Your task to perform on an android device: Go to calendar. Show me events next week Image 0: 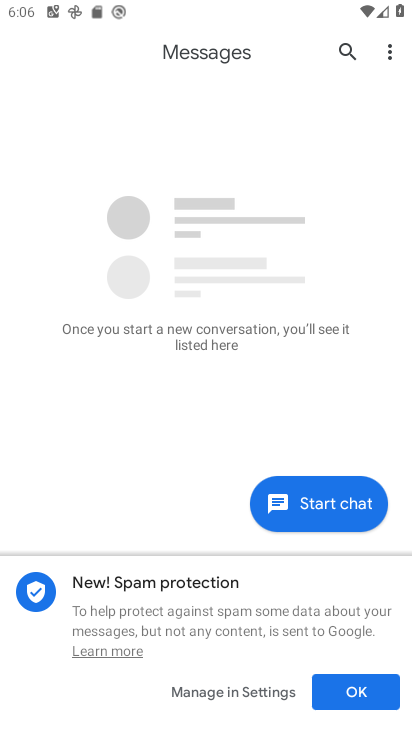
Step 0: press home button
Your task to perform on an android device: Go to calendar. Show me events next week Image 1: 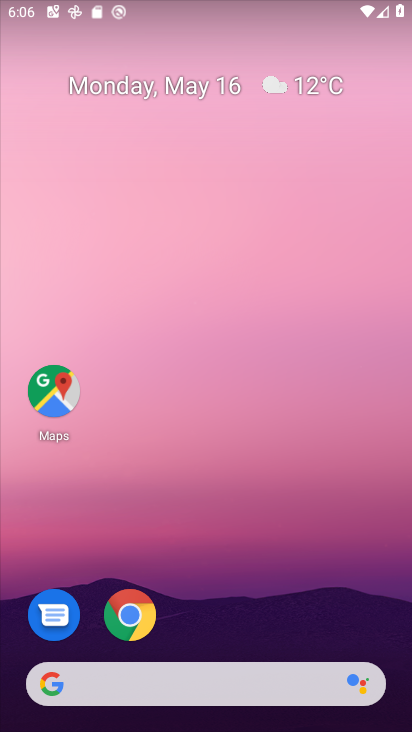
Step 1: drag from (225, 613) to (241, 70)
Your task to perform on an android device: Go to calendar. Show me events next week Image 2: 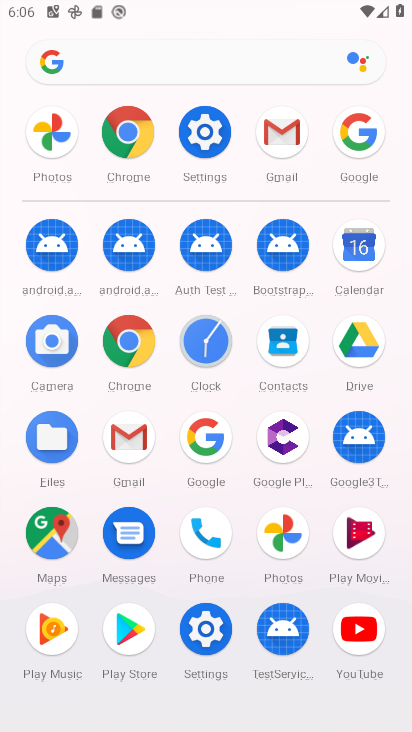
Step 2: click (360, 285)
Your task to perform on an android device: Go to calendar. Show me events next week Image 3: 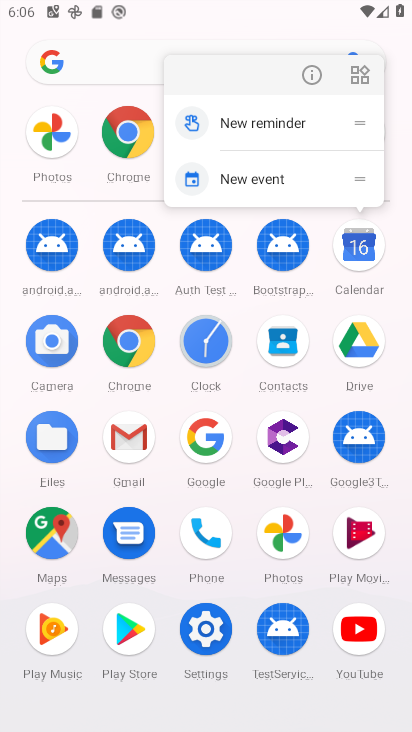
Step 3: click (357, 267)
Your task to perform on an android device: Go to calendar. Show me events next week Image 4: 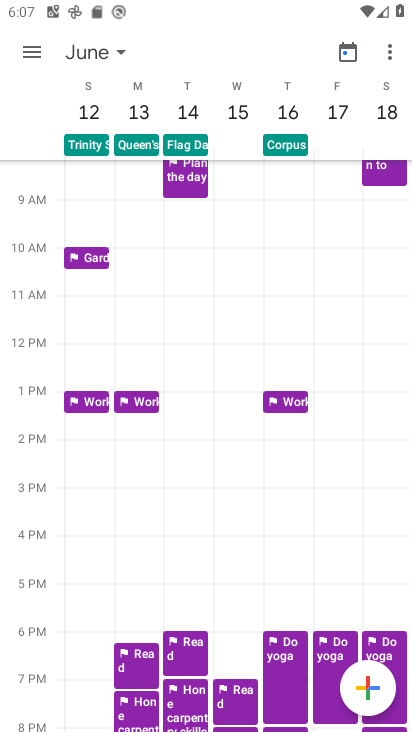
Step 4: click (41, 59)
Your task to perform on an android device: Go to calendar. Show me events next week Image 5: 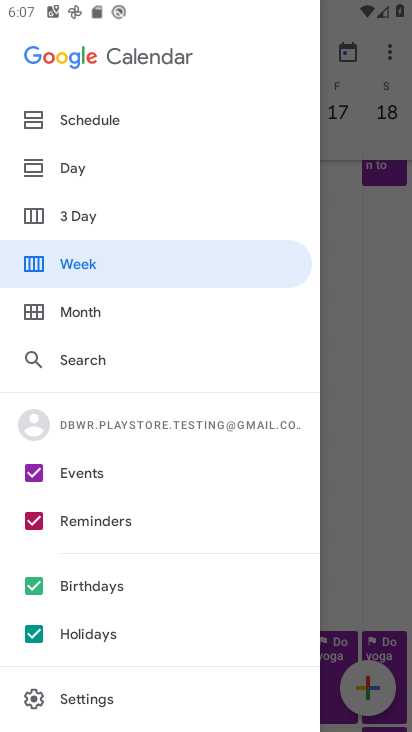
Step 5: click (97, 263)
Your task to perform on an android device: Go to calendar. Show me events next week Image 6: 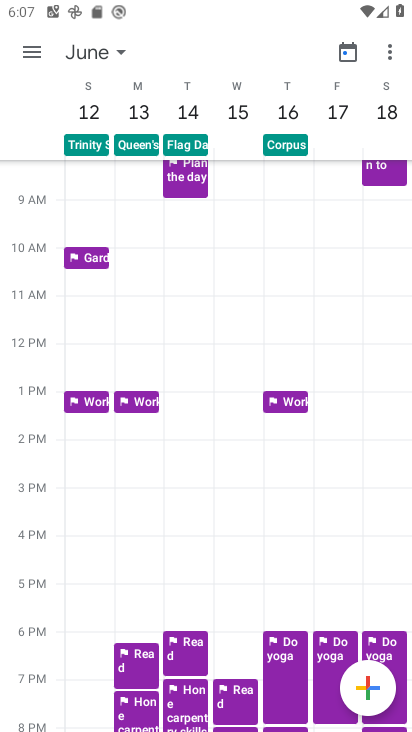
Step 6: click (102, 65)
Your task to perform on an android device: Go to calendar. Show me events next week Image 7: 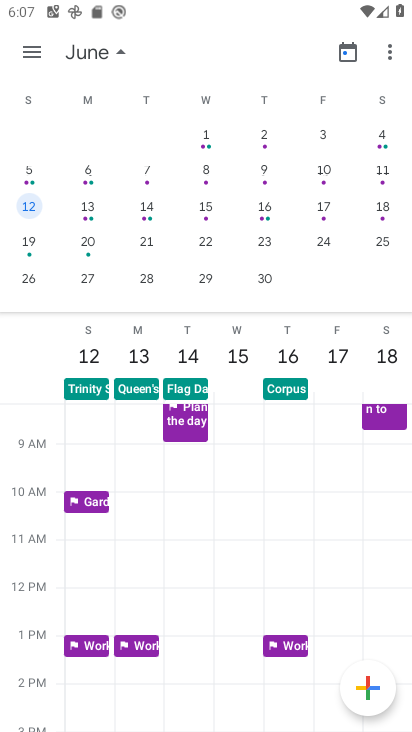
Step 7: drag from (222, 195) to (352, 228)
Your task to perform on an android device: Go to calendar. Show me events next week Image 8: 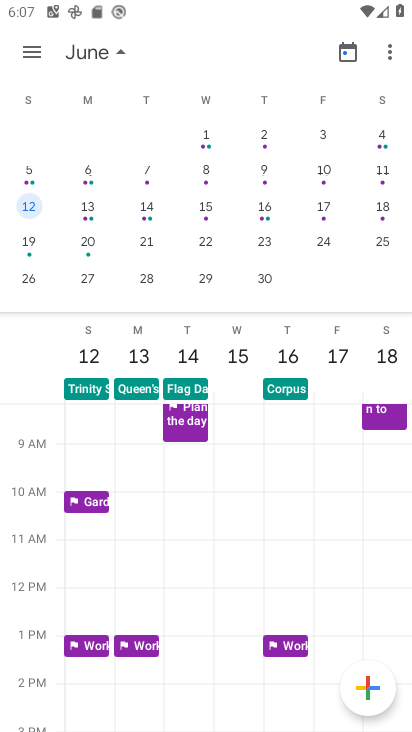
Step 8: drag from (147, 216) to (384, 206)
Your task to perform on an android device: Go to calendar. Show me events next week Image 9: 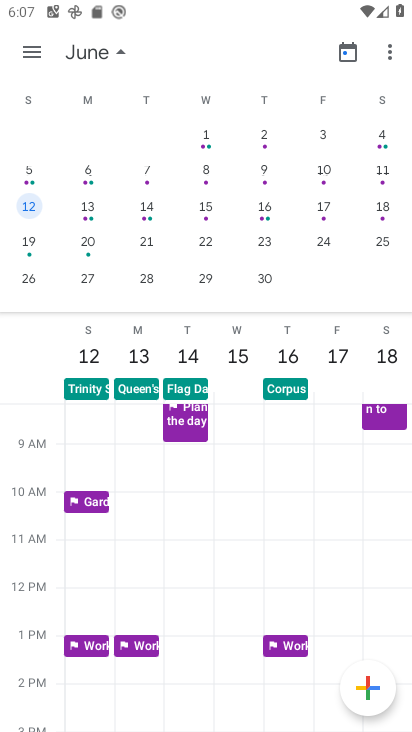
Step 9: drag from (73, 198) to (386, 177)
Your task to perform on an android device: Go to calendar. Show me events next week Image 10: 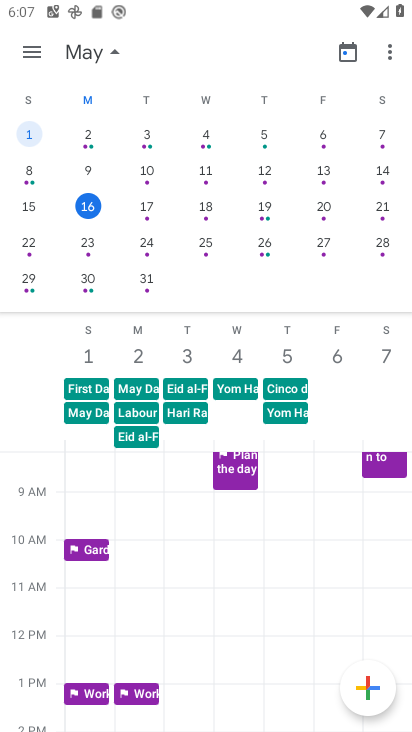
Step 10: click (28, 245)
Your task to perform on an android device: Go to calendar. Show me events next week Image 11: 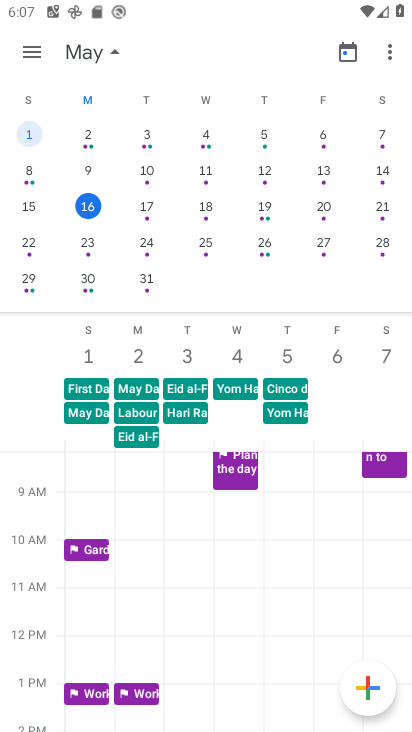
Step 11: click (28, 246)
Your task to perform on an android device: Go to calendar. Show me events next week Image 12: 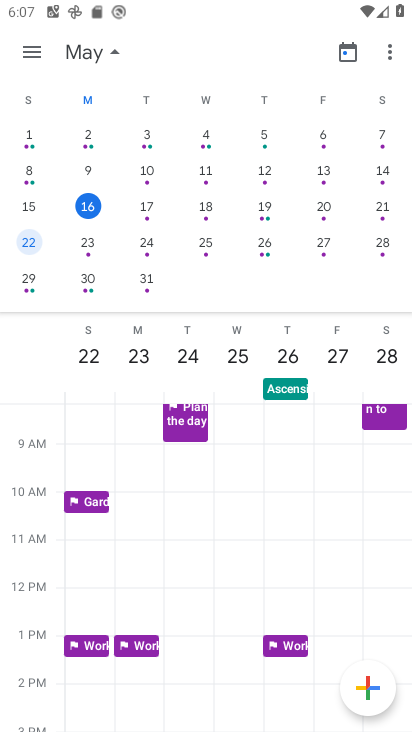
Step 12: task complete